Your task to perform on an android device: Turn off the flashlight Image 0: 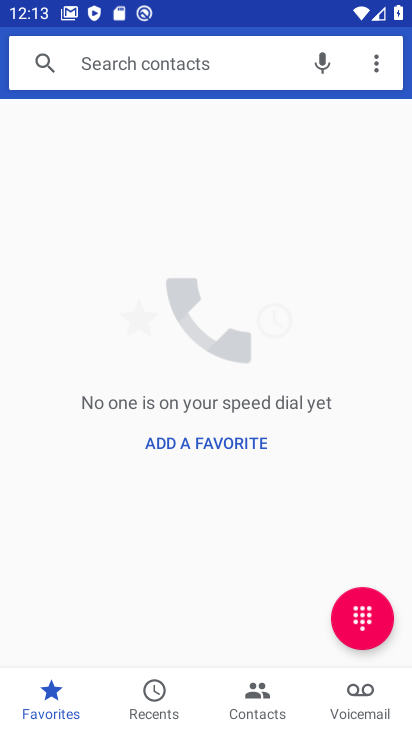
Step 0: press home button
Your task to perform on an android device: Turn off the flashlight Image 1: 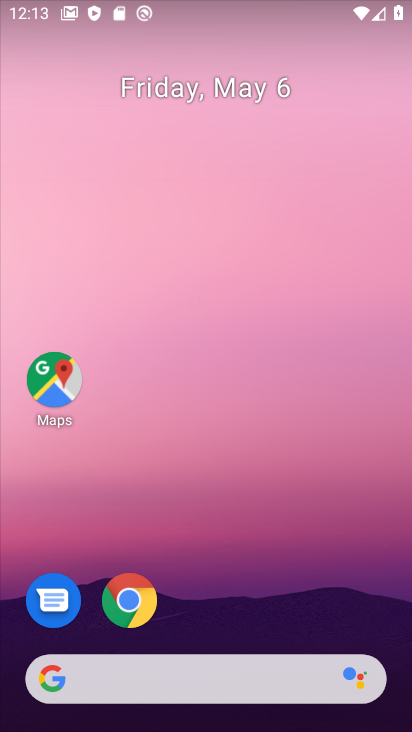
Step 1: task complete